Your task to perform on an android device: Go to location settings Image 0: 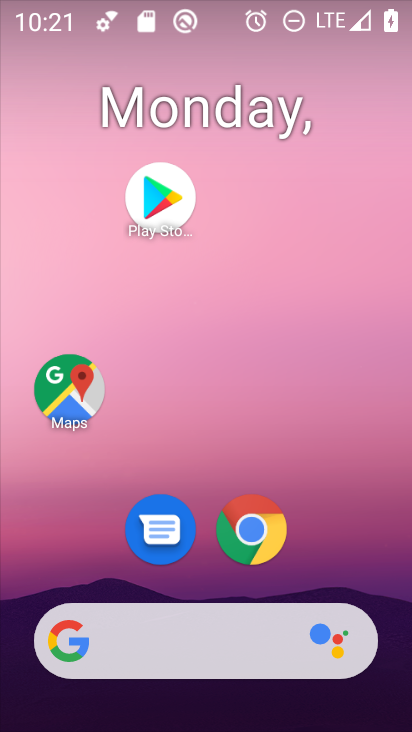
Step 0: drag from (327, 519) to (201, 41)
Your task to perform on an android device: Go to location settings Image 1: 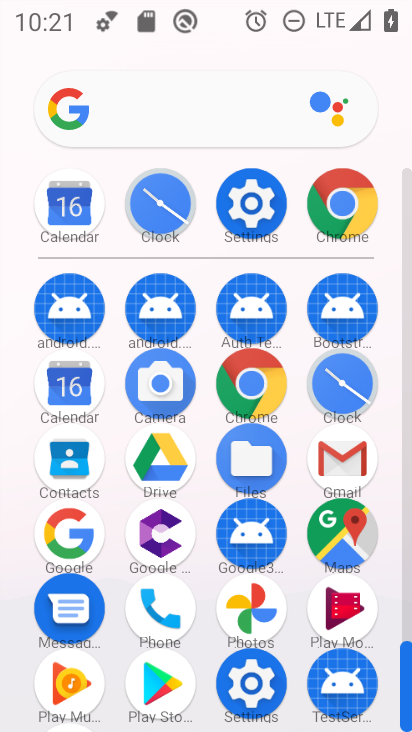
Step 1: click (249, 202)
Your task to perform on an android device: Go to location settings Image 2: 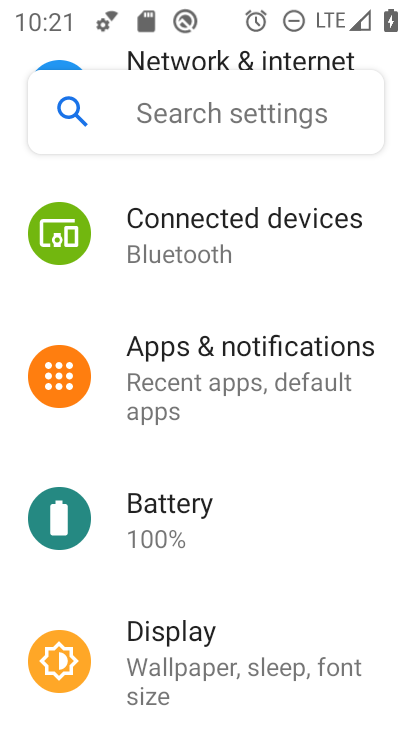
Step 2: drag from (242, 457) to (204, 161)
Your task to perform on an android device: Go to location settings Image 3: 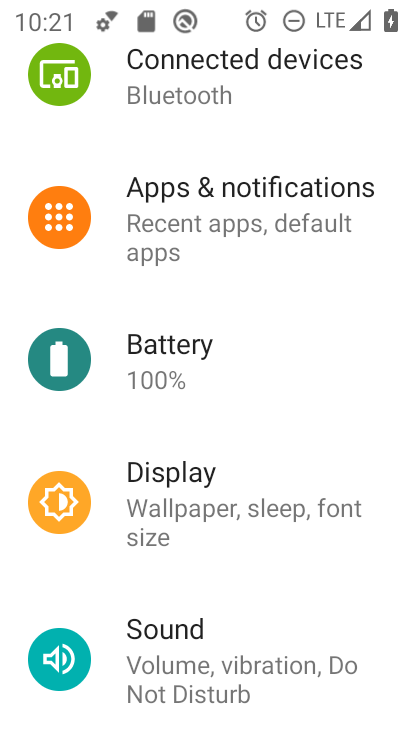
Step 3: drag from (245, 573) to (228, 250)
Your task to perform on an android device: Go to location settings Image 4: 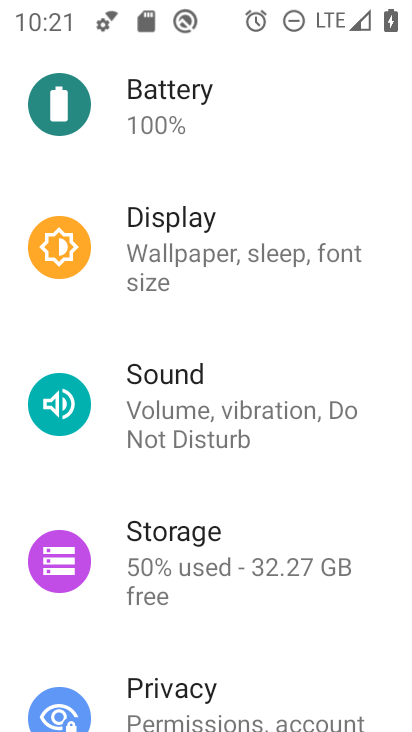
Step 4: drag from (229, 487) to (194, 99)
Your task to perform on an android device: Go to location settings Image 5: 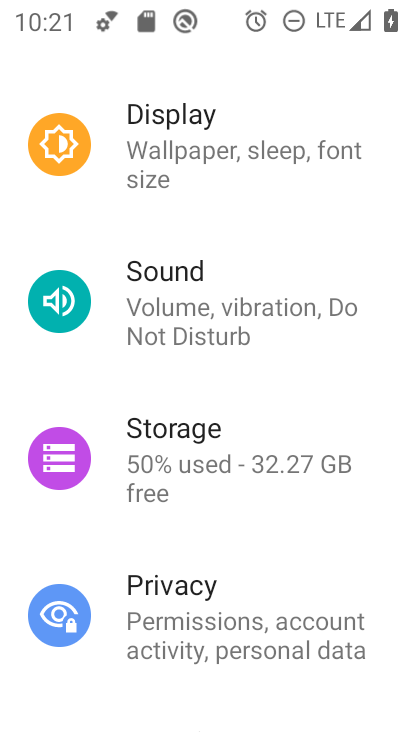
Step 5: drag from (192, 544) to (186, 132)
Your task to perform on an android device: Go to location settings Image 6: 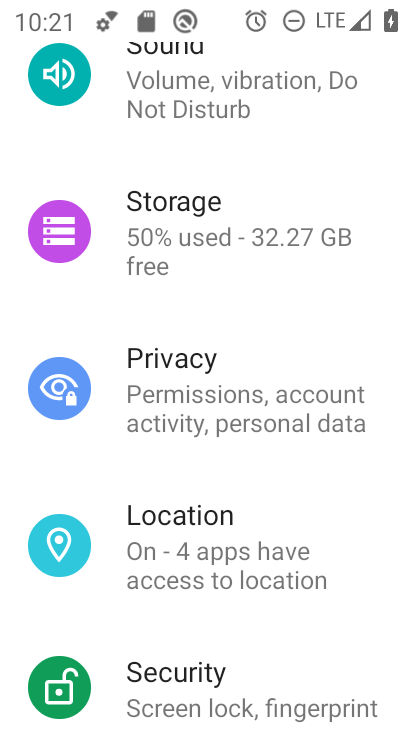
Step 6: click (172, 528)
Your task to perform on an android device: Go to location settings Image 7: 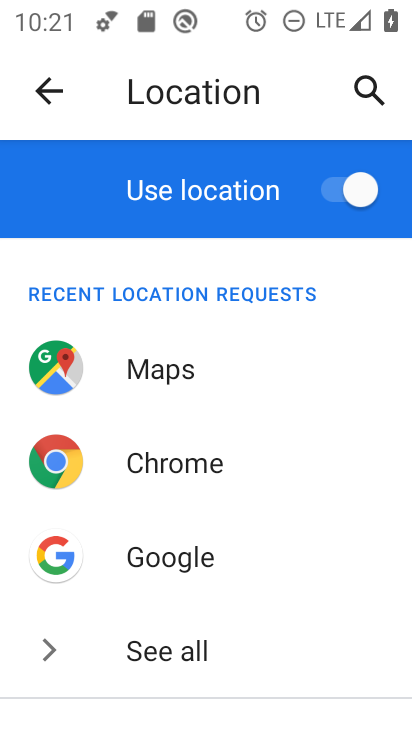
Step 7: task complete